Your task to perform on an android device: Open Google Chrome and click the shortcut for Amazon.com Image 0: 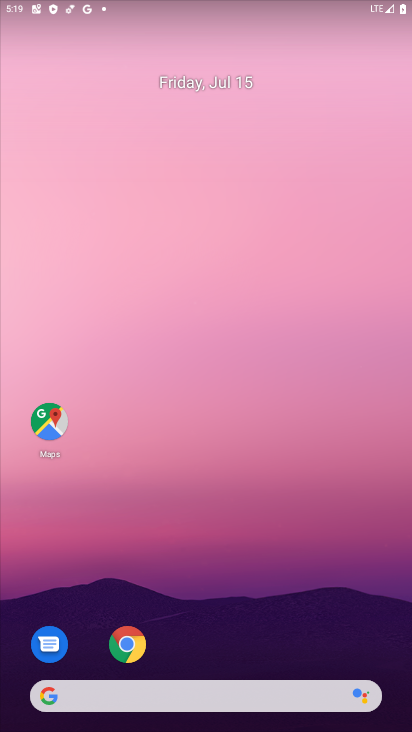
Step 0: click (128, 643)
Your task to perform on an android device: Open Google Chrome and click the shortcut for Amazon.com Image 1: 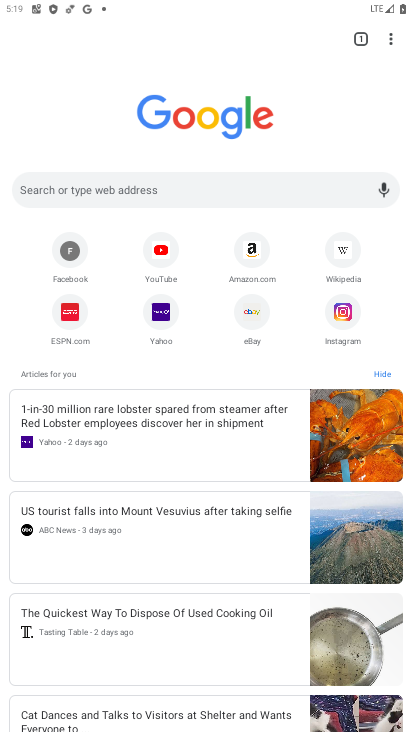
Step 1: click (249, 257)
Your task to perform on an android device: Open Google Chrome and click the shortcut for Amazon.com Image 2: 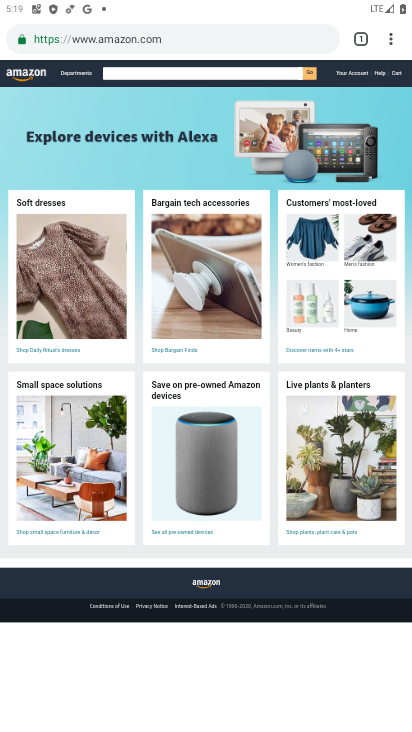
Step 2: task complete